Your task to perform on an android device: Go to settings Image 0: 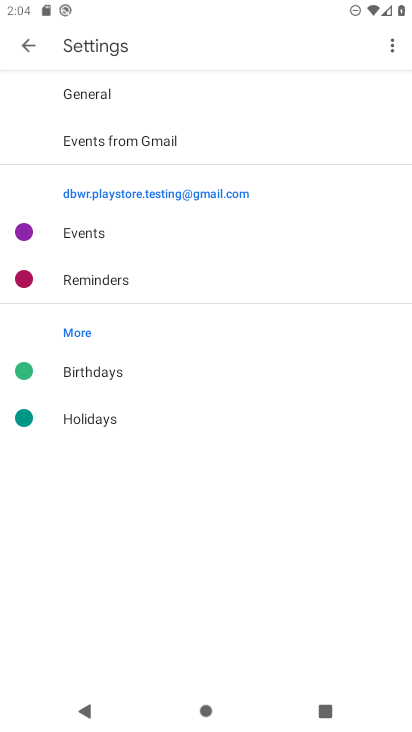
Step 0: press back button
Your task to perform on an android device: Go to settings Image 1: 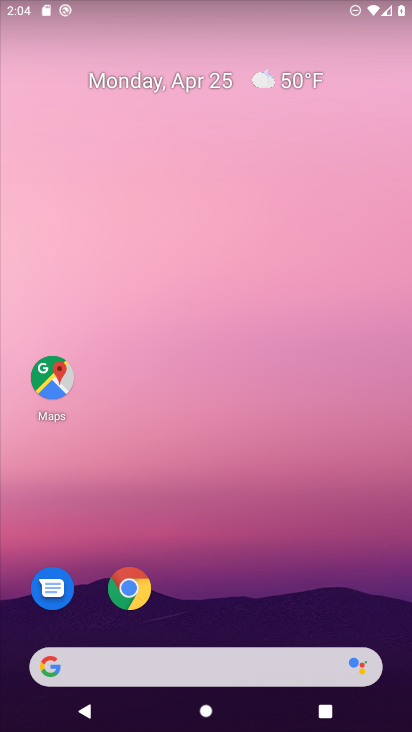
Step 1: drag from (168, 642) to (257, 121)
Your task to perform on an android device: Go to settings Image 2: 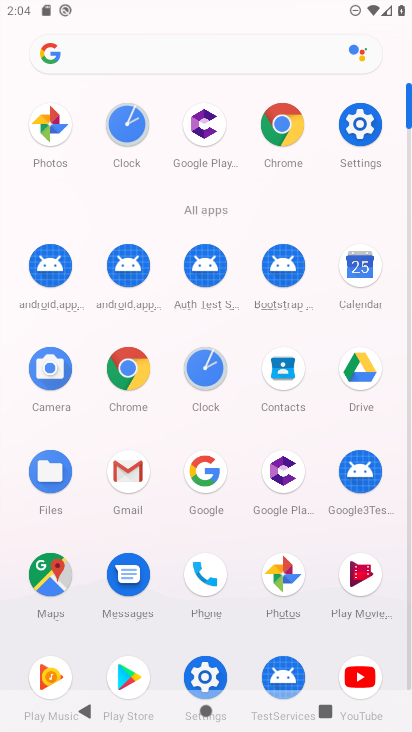
Step 2: click (355, 137)
Your task to perform on an android device: Go to settings Image 3: 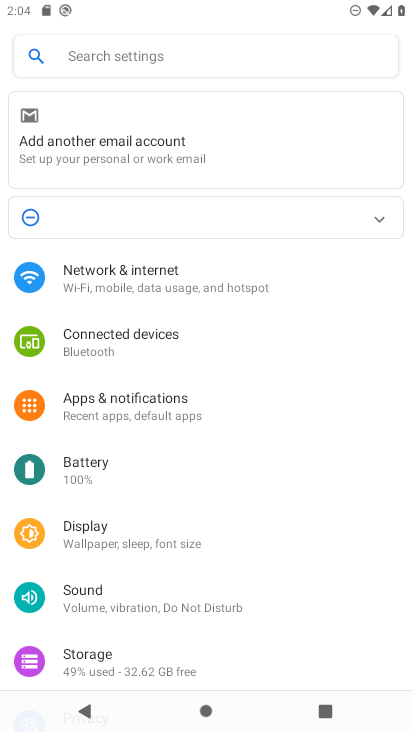
Step 3: task complete